Your task to perform on an android device: Open Android settings Image 0: 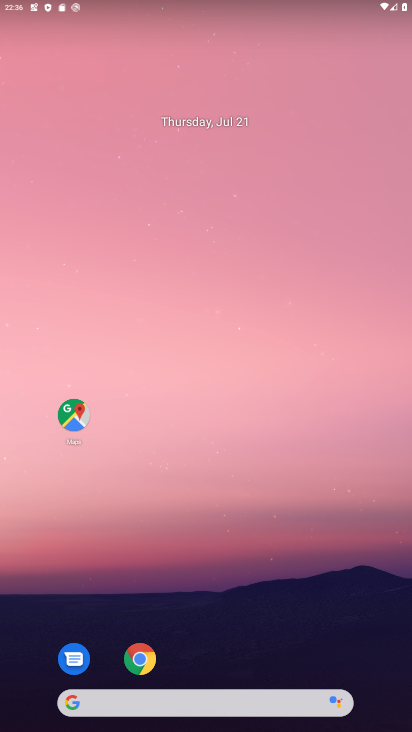
Step 0: drag from (288, 643) to (214, 141)
Your task to perform on an android device: Open Android settings Image 1: 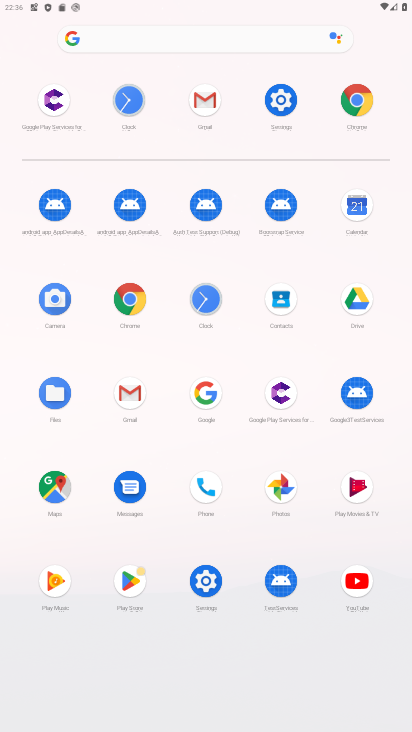
Step 1: click (277, 101)
Your task to perform on an android device: Open Android settings Image 2: 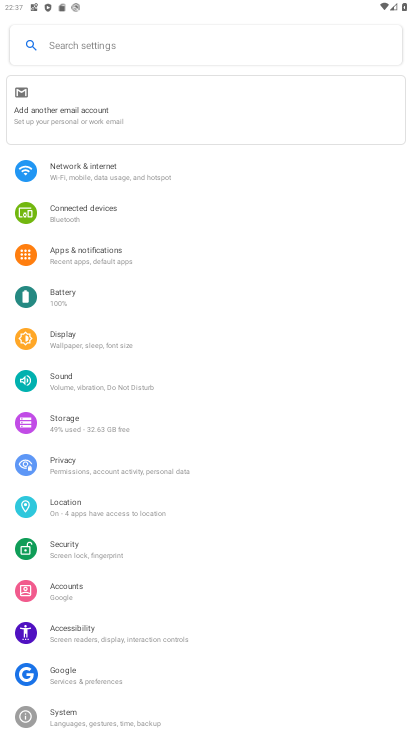
Step 2: task complete